Your task to perform on an android device: Go to Wikipedia Image 0: 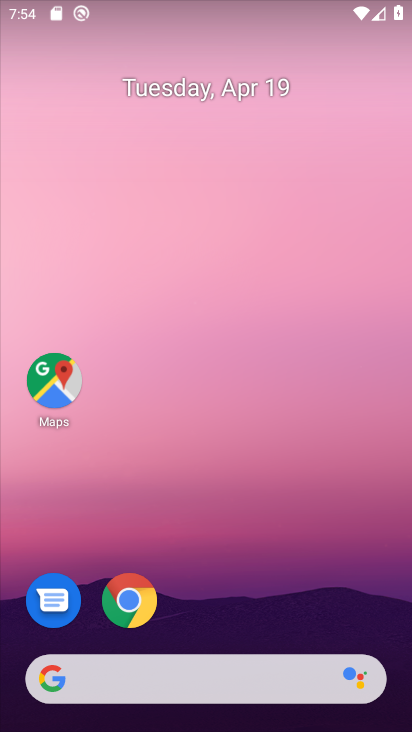
Step 0: drag from (364, 559) to (351, 104)
Your task to perform on an android device: Go to Wikipedia Image 1: 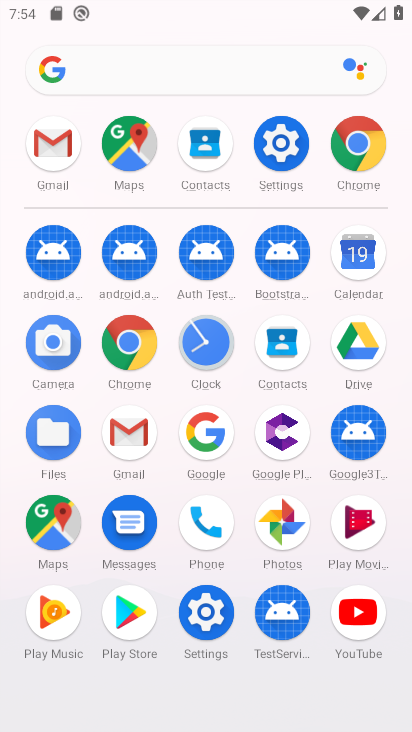
Step 1: click (358, 158)
Your task to perform on an android device: Go to Wikipedia Image 2: 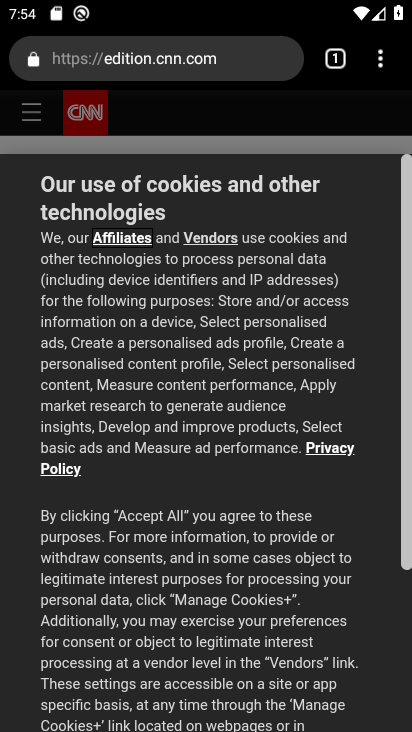
Step 2: press back button
Your task to perform on an android device: Go to Wikipedia Image 3: 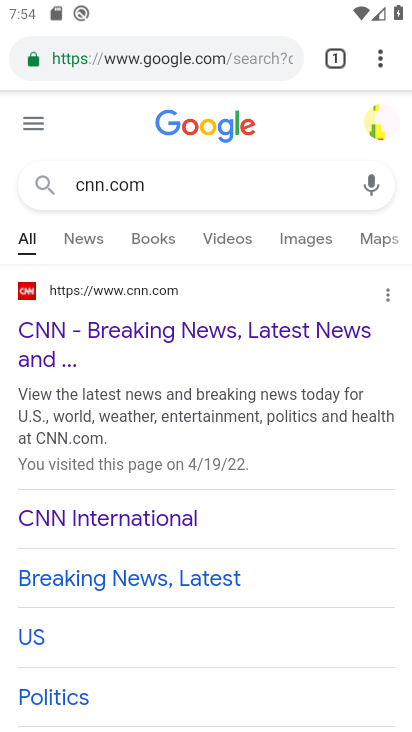
Step 3: press back button
Your task to perform on an android device: Go to Wikipedia Image 4: 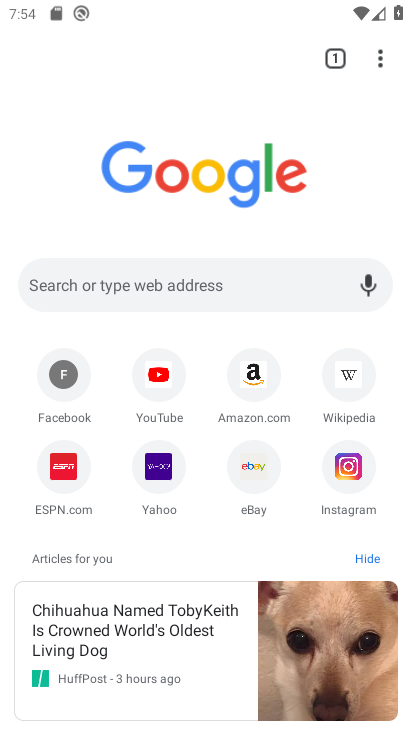
Step 4: click (348, 382)
Your task to perform on an android device: Go to Wikipedia Image 5: 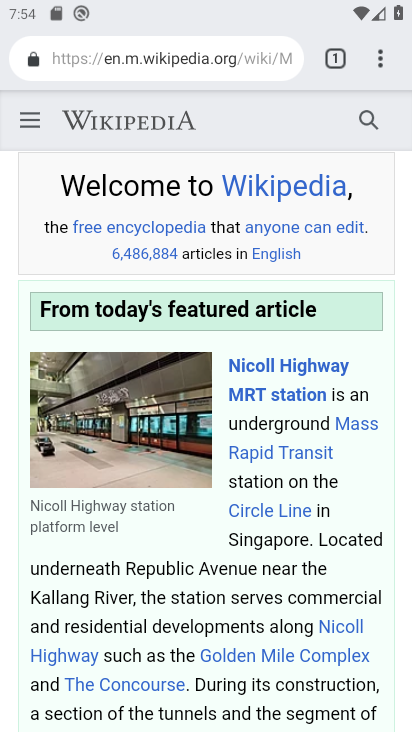
Step 5: task complete